Your task to perform on an android device: find which apps use the phone's location Image 0: 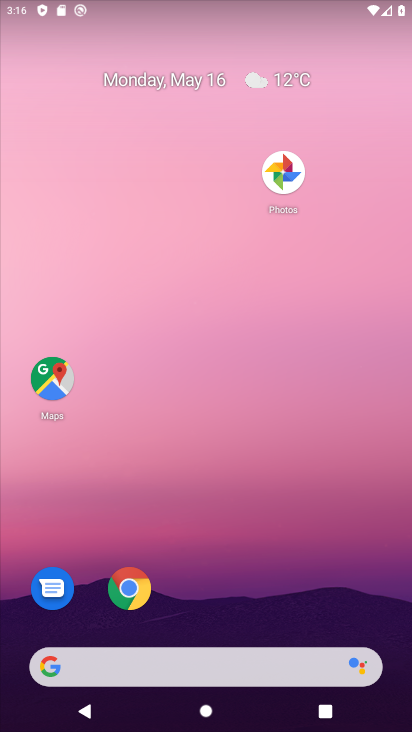
Step 0: drag from (196, 629) to (175, 36)
Your task to perform on an android device: find which apps use the phone's location Image 1: 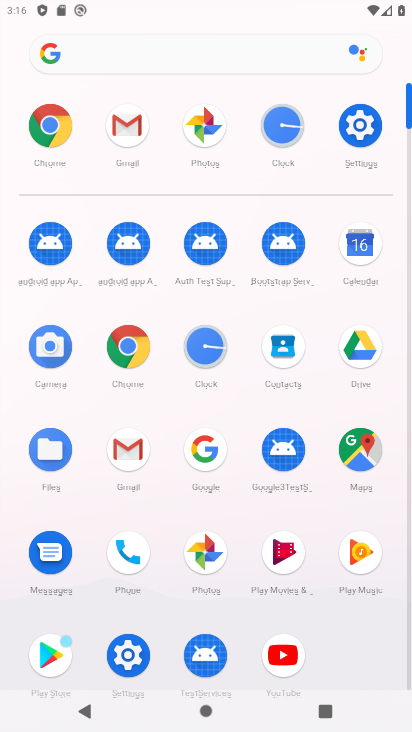
Step 1: click (127, 662)
Your task to perform on an android device: find which apps use the phone's location Image 2: 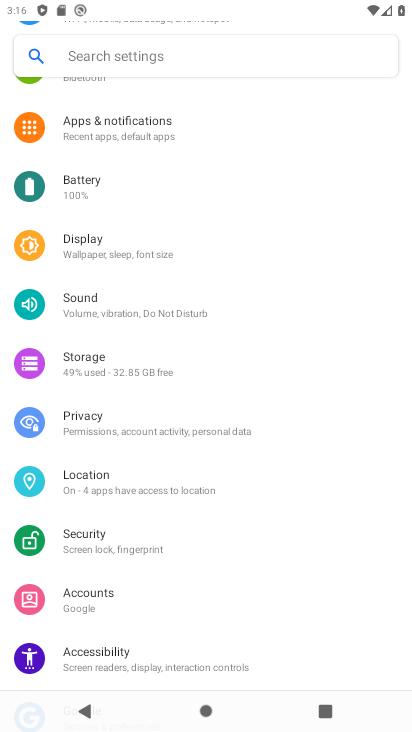
Step 2: click (148, 494)
Your task to perform on an android device: find which apps use the phone's location Image 3: 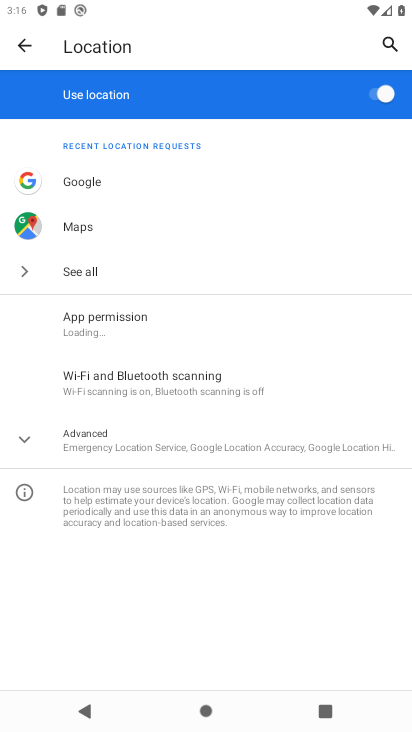
Step 3: click (100, 270)
Your task to perform on an android device: find which apps use the phone's location Image 4: 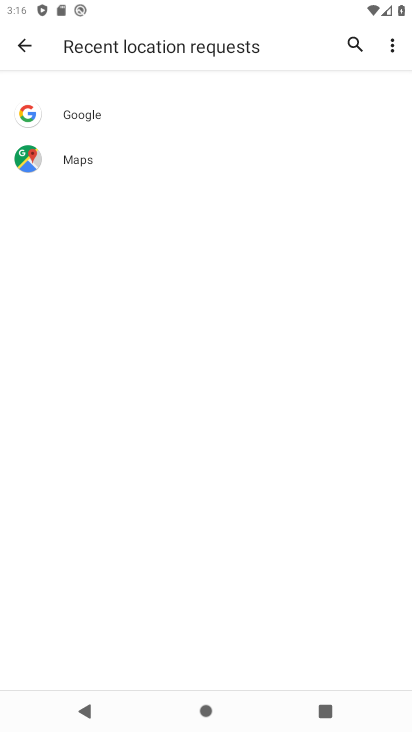
Step 4: task complete